Your task to perform on an android device: turn on bluetooth scan Image 0: 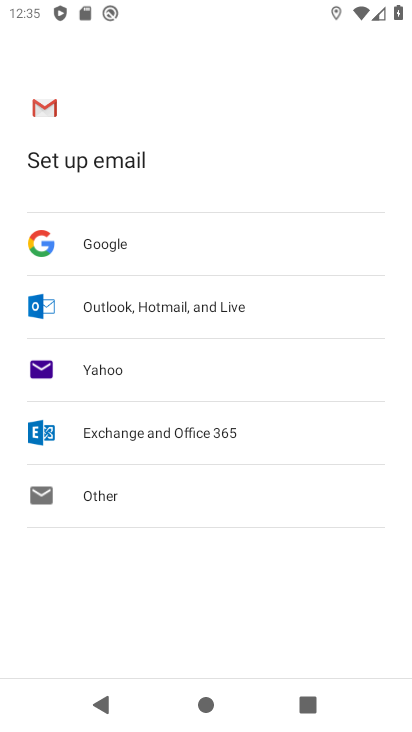
Step 0: press home button
Your task to perform on an android device: turn on bluetooth scan Image 1: 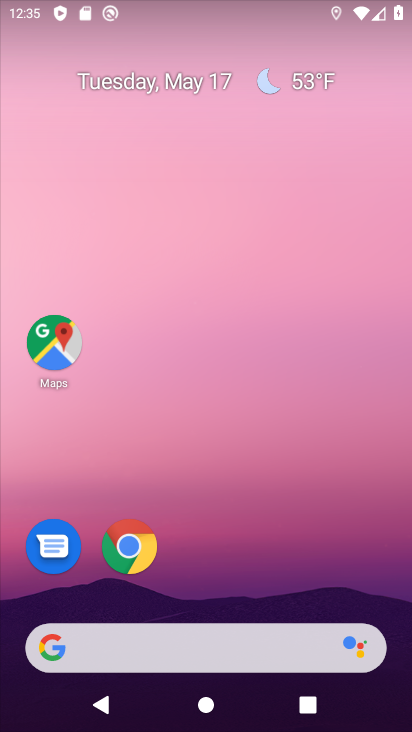
Step 1: drag from (242, 589) to (277, 168)
Your task to perform on an android device: turn on bluetooth scan Image 2: 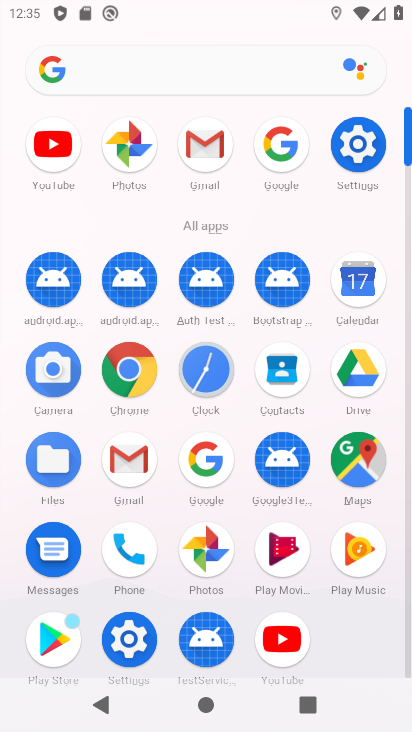
Step 2: click (373, 135)
Your task to perform on an android device: turn on bluetooth scan Image 3: 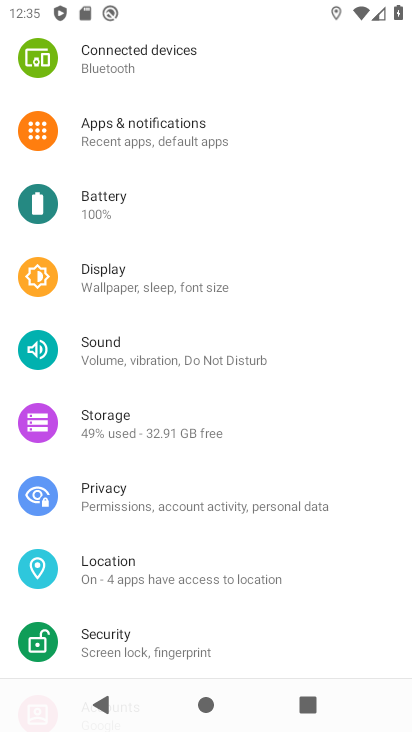
Step 3: click (156, 574)
Your task to perform on an android device: turn on bluetooth scan Image 4: 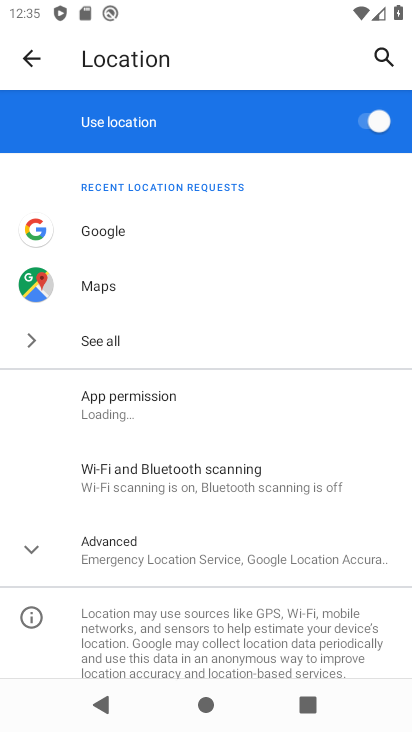
Step 4: click (186, 541)
Your task to perform on an android device: turn on bluetooth scan Image 5: 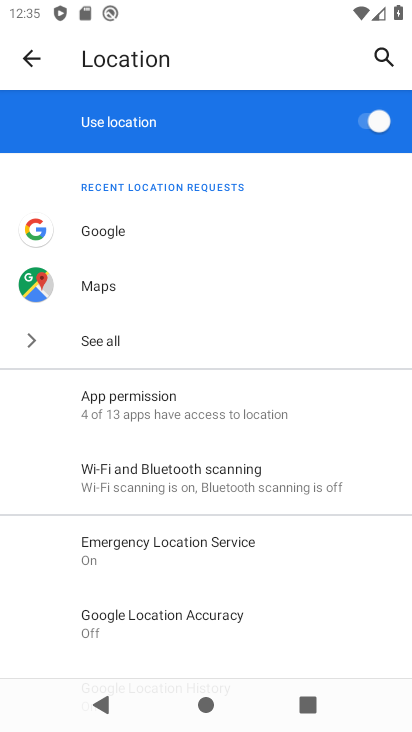
Step 5: drag from (183, 577) to (203, 394)
Your task to perform on an android device: turn on bluetooth scan Image 6: 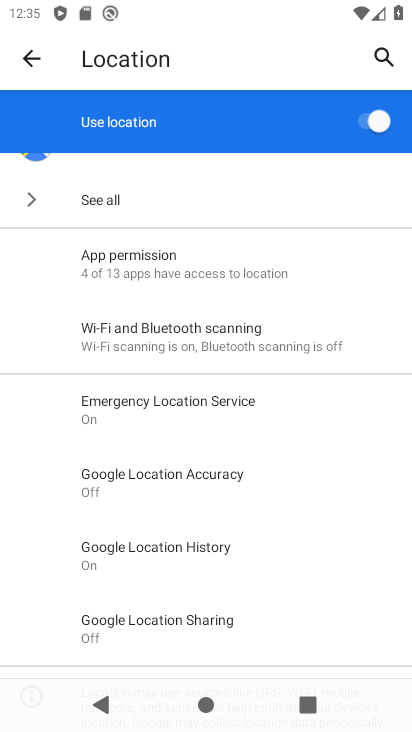
Step 6: click (207, 337)
Your task to perform on an android device: turn on bluetooth scan Image 7: 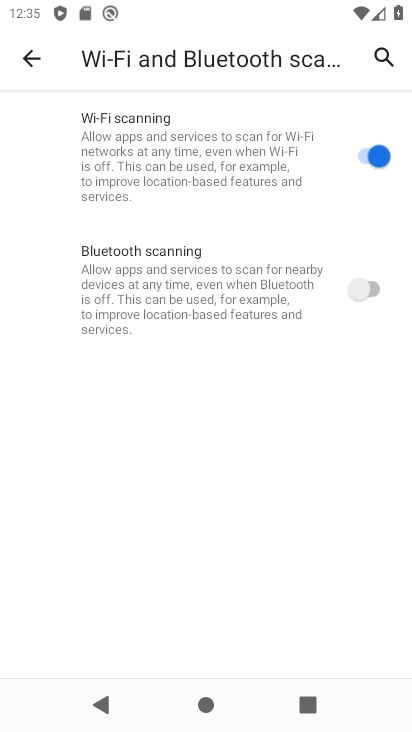
Step 7: click (375, 290)
Your task to perform on an android device: turn on bluetooth scan Image 8: 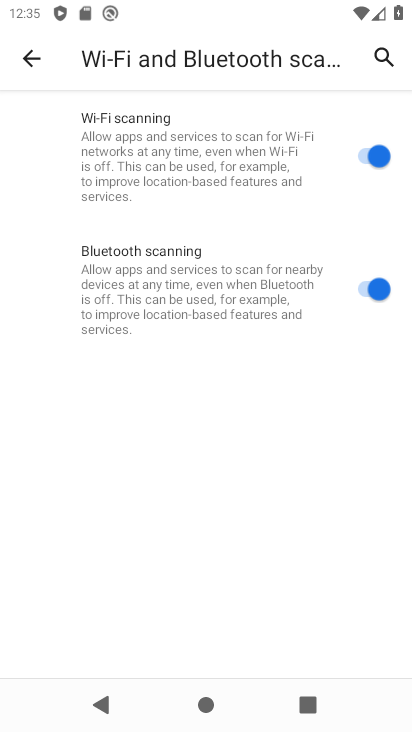
Step 8: task complete